Your task to perform on an android device: find which apps use the phone's location Image 0: 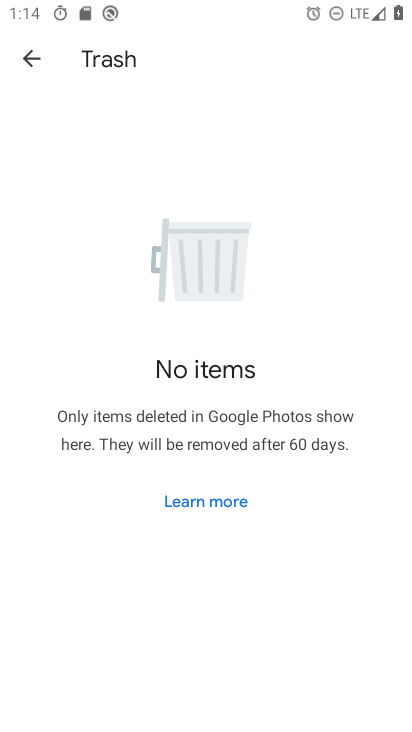
Step 0: press home button
Your task to perform on an android device: find which apps use the phone's location Image 1: 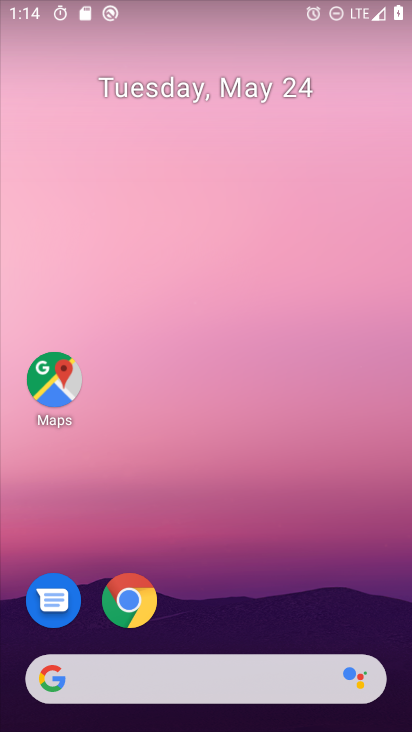
Step 1: drag from (296, 510) to (260, 140)
Your task to perform on an android device: find which apps use the phone's location Image 2: 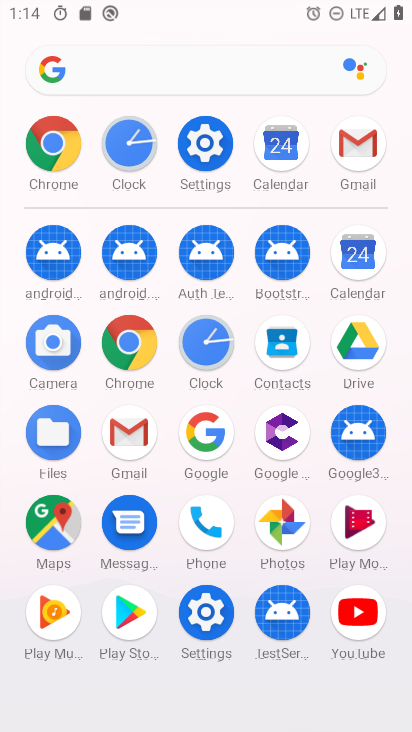
Step 2: click (211, 136)
Your task to perform on an android device: find which apps use the phone's location Image 3: 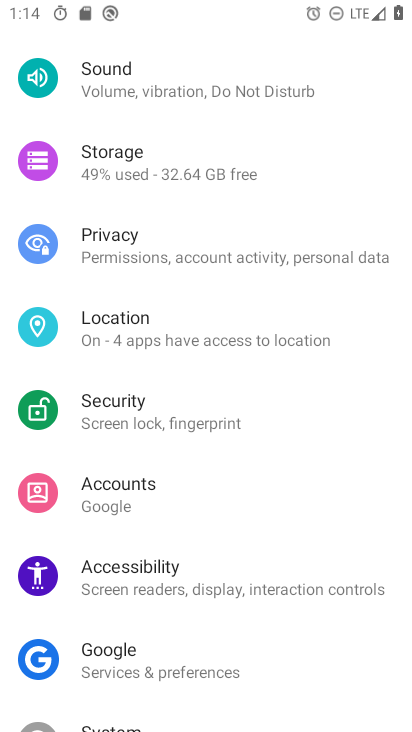
Step 3: drag from (161, 606) to (188, 415)
Your task to perform on an android device: find which apps use the phone's location Image 4: 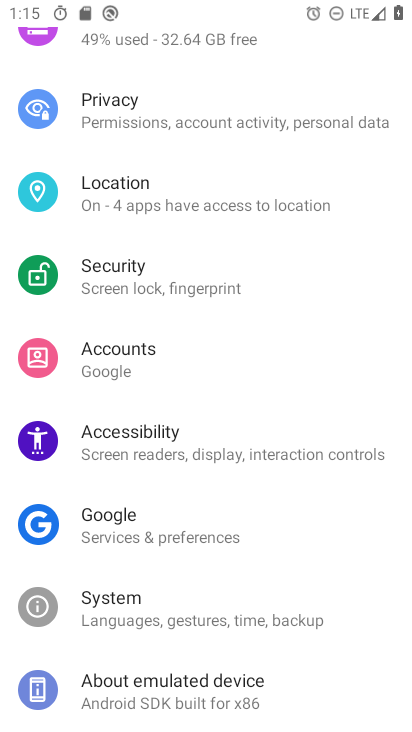
Step 4: click (163, 211)
Your task to perform on an android device: find which apps use the phone's location Image 5: 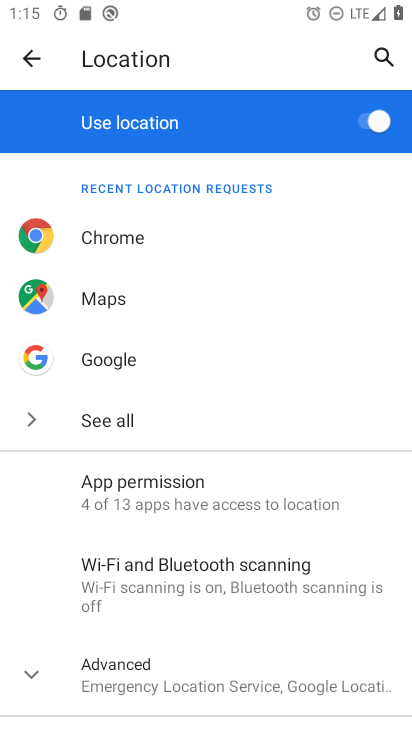
Step 5: click (200, 494)
Your task to perform on an android device: find which apps use the phone's location Image 6: 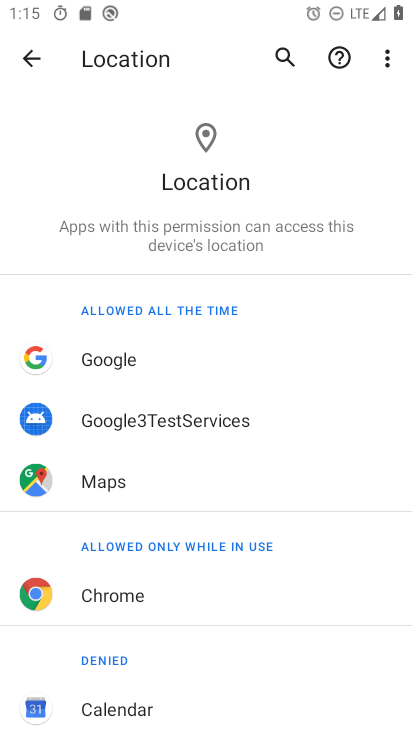
Step 6: task complete